Your task to perform on an android device: Turn off the flashlight Image 0: 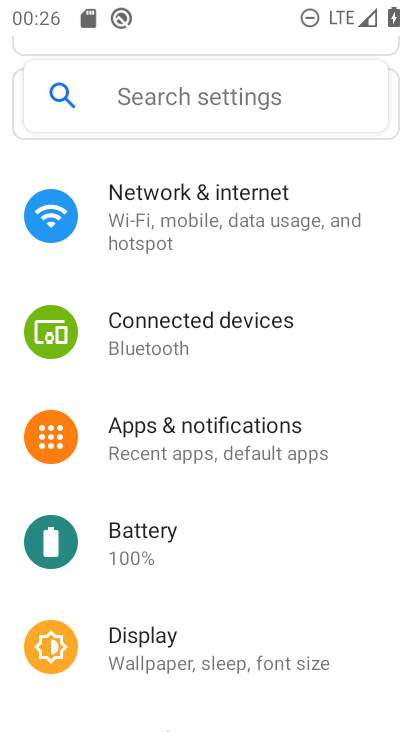
Step 0: press home button
Your task to perform on an android device: Turn off the flashlight Image 1: 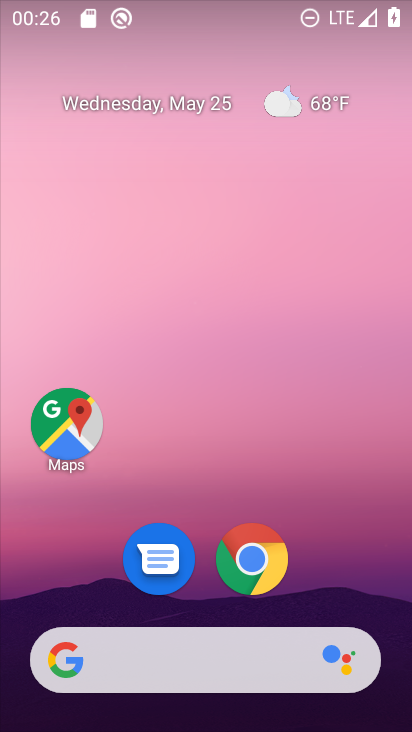
Step 1: drag from (201, 13) to (247, 412)
Your task to perform on an android device: Turn off the flashlight Image 2: 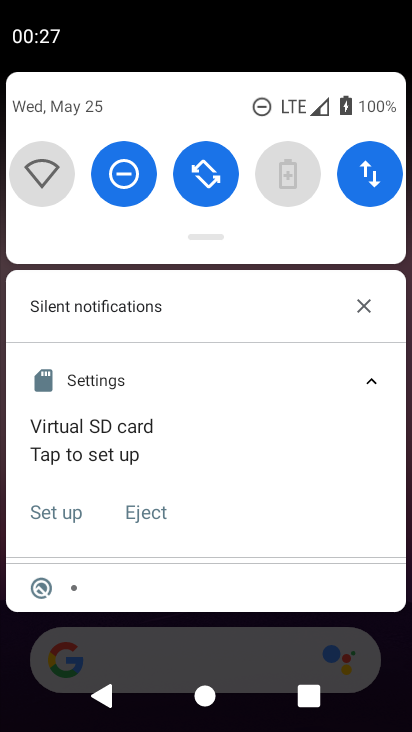
Step 2: drag from (201, 233) to (240, 488)
Your task to perform on an android device: Turn off the flashlight Image 3: 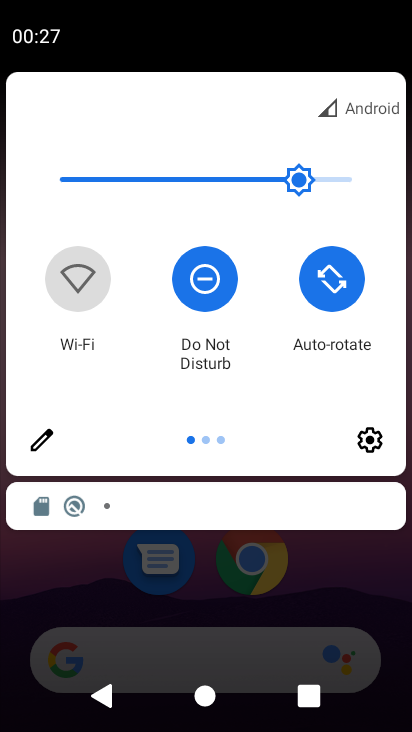
Step 3: click (39, 437)
Your task to perform on an android device: Turn off the flashlight Image 4: 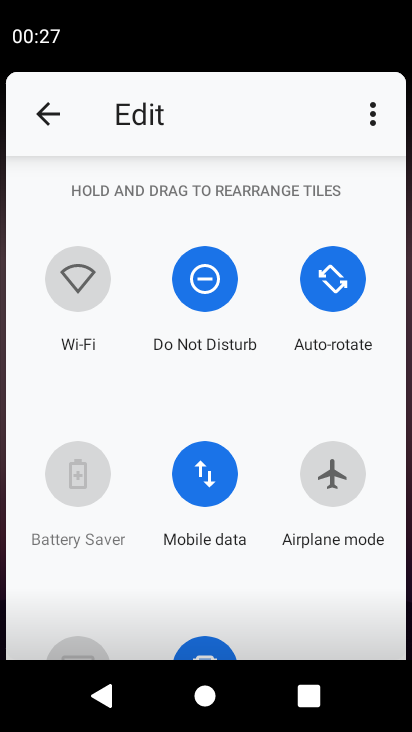
Step 4: task complete